Your task to perform on an android device: Open Chrome and go to settings Image 0: 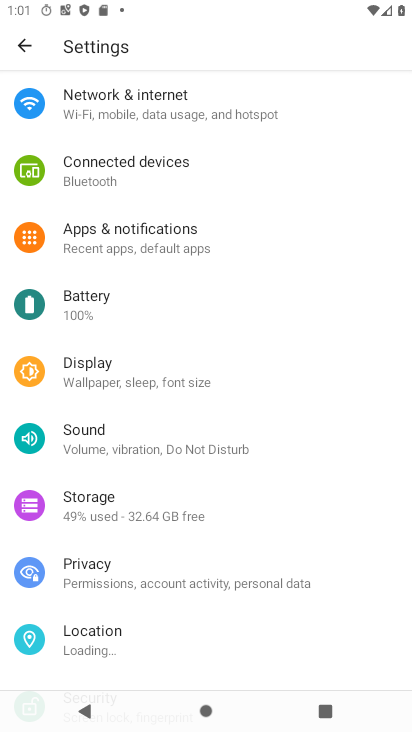
Step 0: press home button
Your task to perform on an android device: Open Chrome and go to settings Image 1: 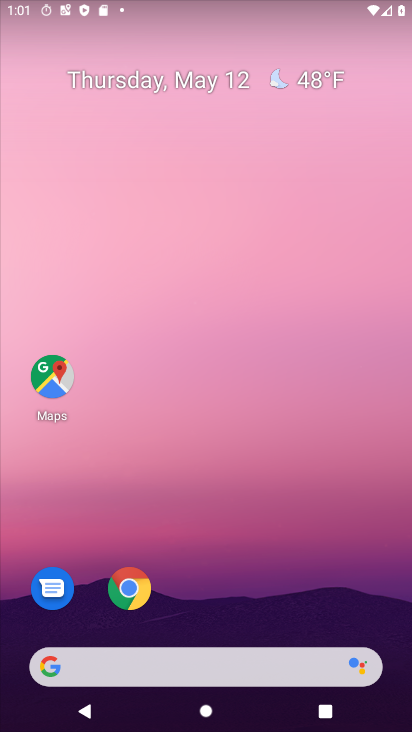
Step 1: click (129, 590)
Your task to perform on an android device: Open Chrome and go to settings Image 2: 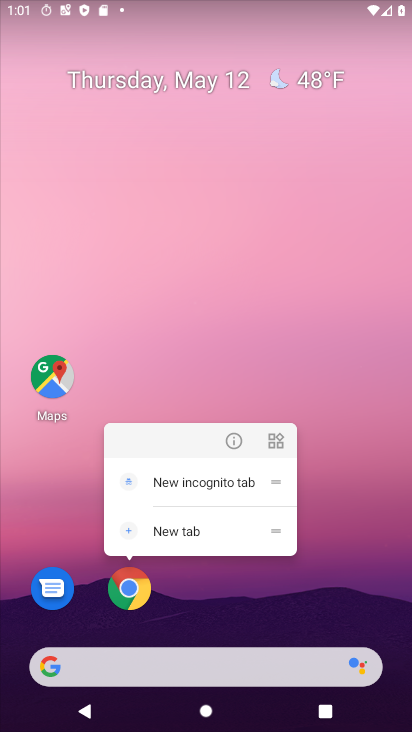
Step 2: click (129, 590)
Your task to perform on an android device: Open Chrome and go to settings Image 3: 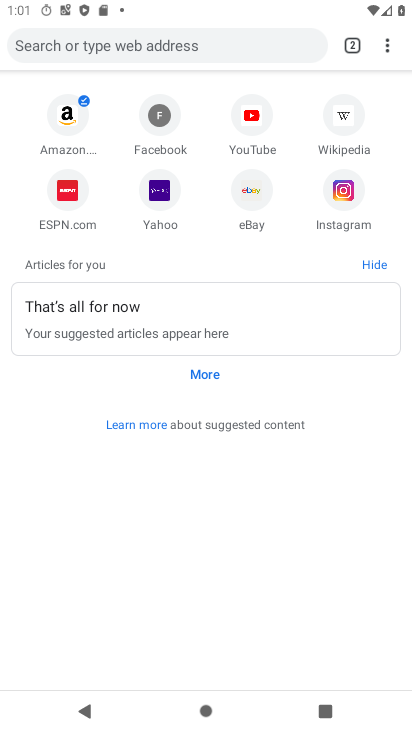
Step 3: click (380, 45)
Your task to perform on an android device: Open Chrome and go to settings Image 4: 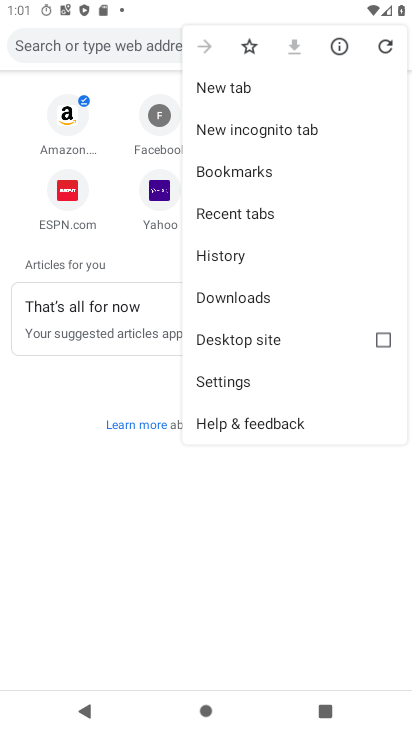
Step 4: click (260, 378)
Your task to perform on an android device: Open Chrome and go to settings Image 5: 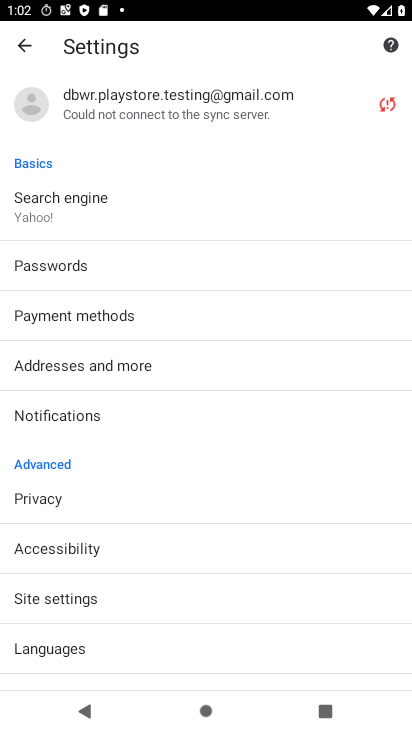
Step 5: task complete